Your task to perform on an android device: turn notification dots off Image 0: 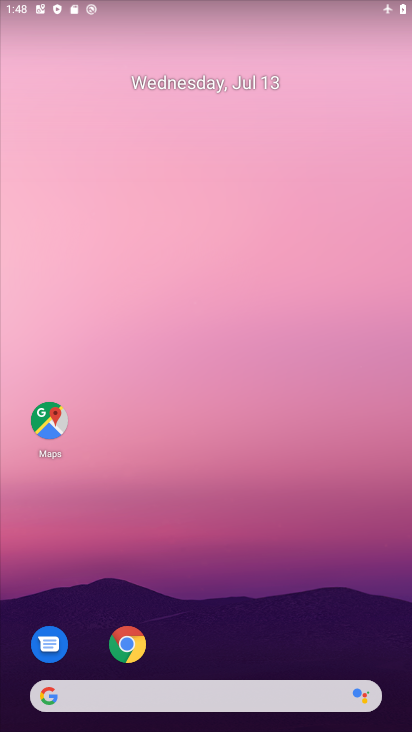
Step 0: drag from (275, 580) to (267, 45)
Your task to perform on an android device: turn notification dots off Image 1: 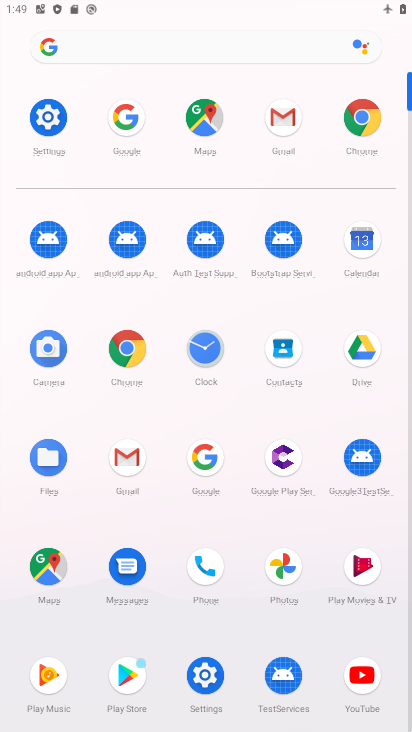
Step 1: click (45, 111)
Your task to perform on an android device: turn notification dots off Image 2: 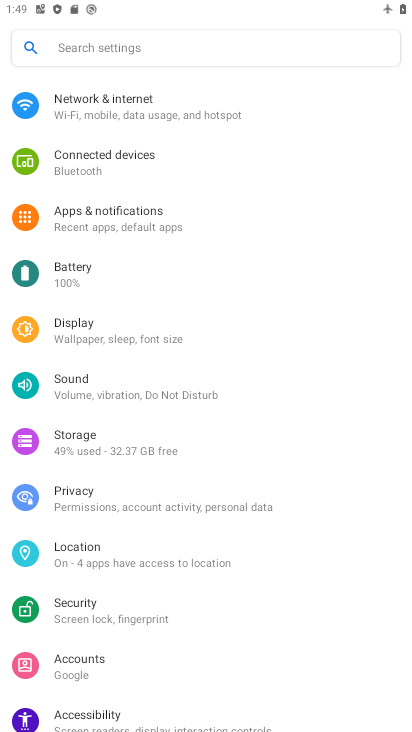
Step 2: click (116, 213)
Your task to perform on an android device: turn notification dots off Image 3: 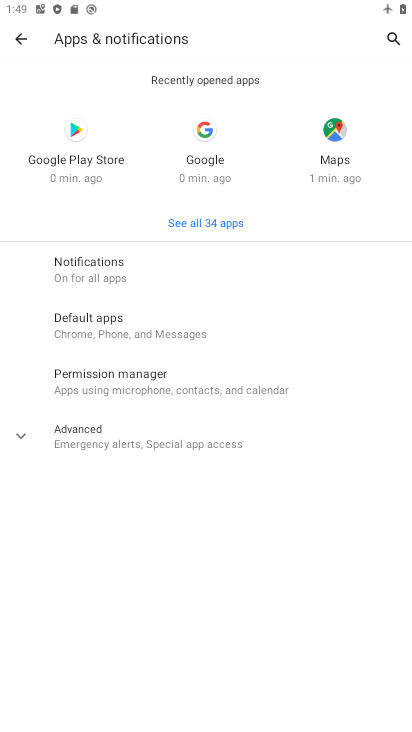
Step 3: click (124, 269)
Your task to perform on an android device: turn notification dots off Image 4: 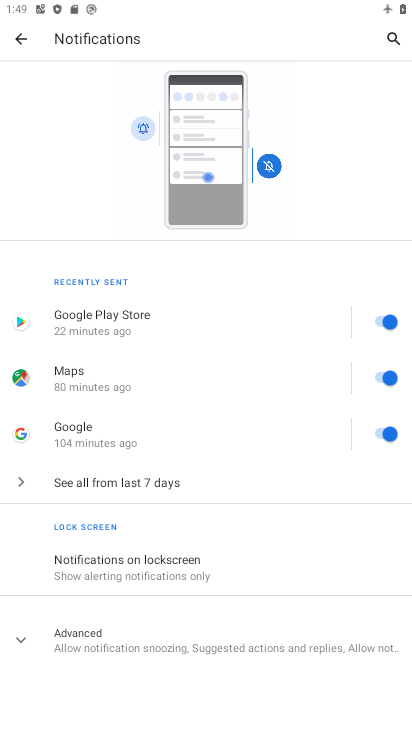
Step 4: click (203, 659)
Your task to perform on an android device: turn notification dots off Image 5: 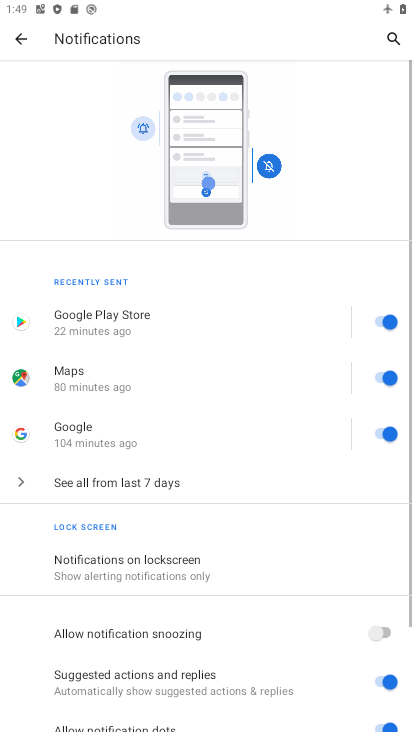
Step 5: drag from (227, 621) to (265, 207)
Your task to perform on an android device: turn notification dots off Image 6: 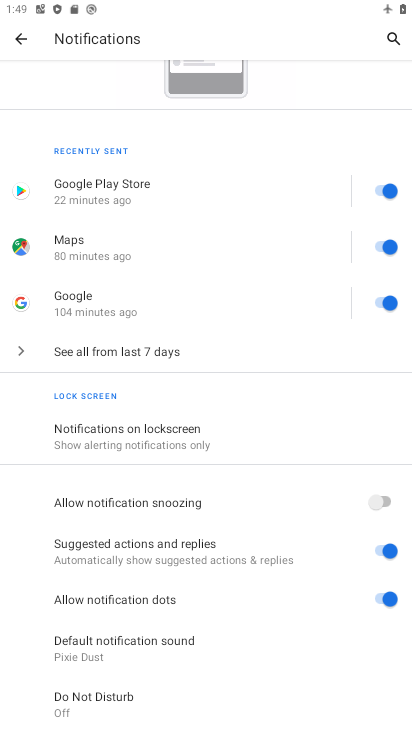
Step 6: click (394, 600)
Your task to perform on an android device: turn notification dots off Image 7: 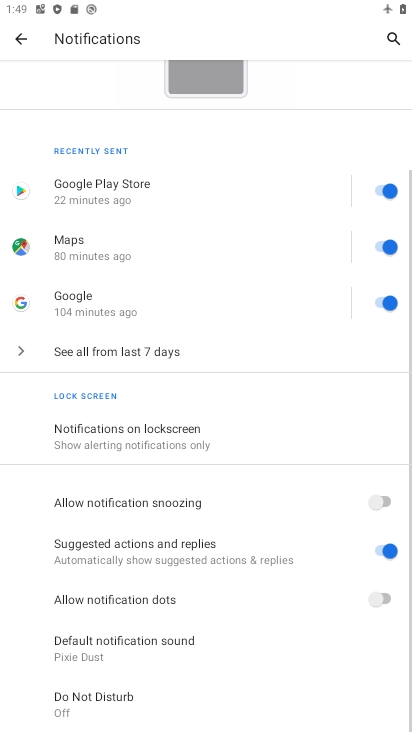
Step 7: task complete